Your task to perform on an android device: turn vacation reply on in the gmail app Image 0: 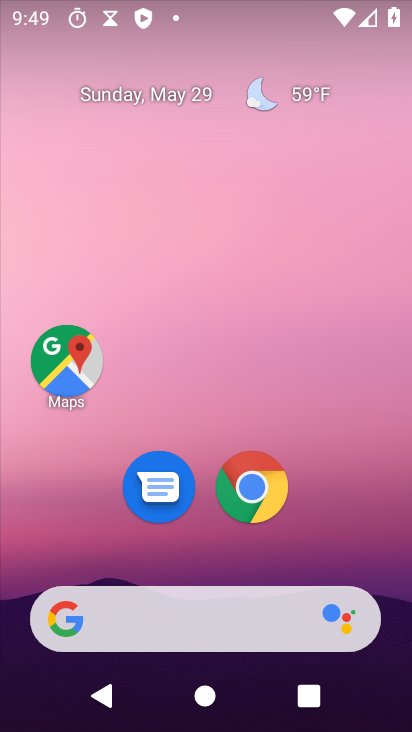
Step 0: drag from (331, 523) to (298, 77)
Your task to perform on an android device: turn vacation reply on in the gmail app Image 1: 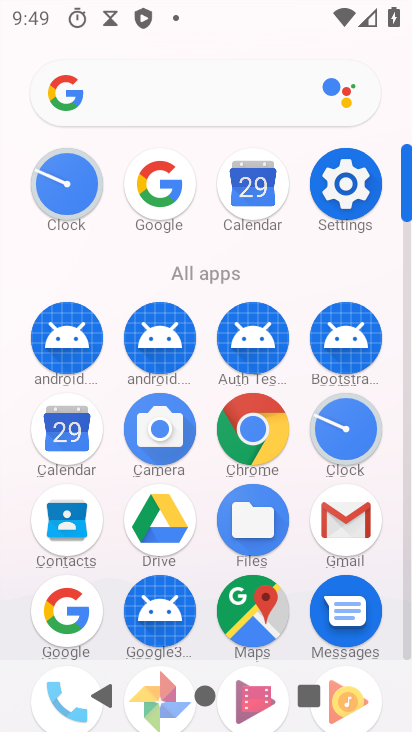
Step 1: click (344, 520)
Your task to perform on an android device: turn vacation reply on in the gmail app Image 2: 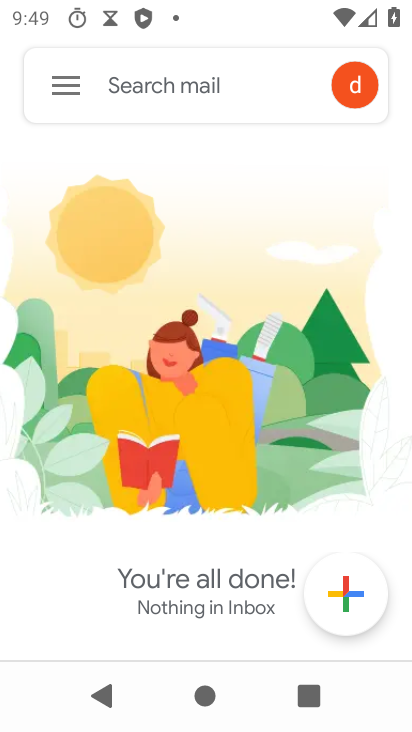
Step 2: click (60, 83)
Your task to perform on an android device: turn vacation reply on in the gmail app Image 3: 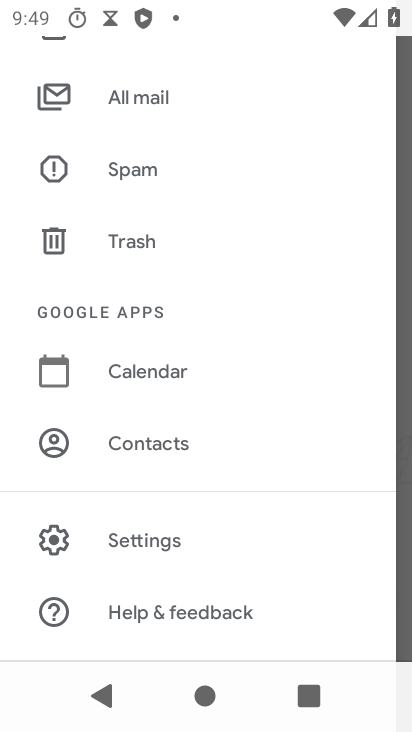
Step 3: click (172, 548)
Your task to perform on an android device: turn vacation reply on in the gmail app Image 4: 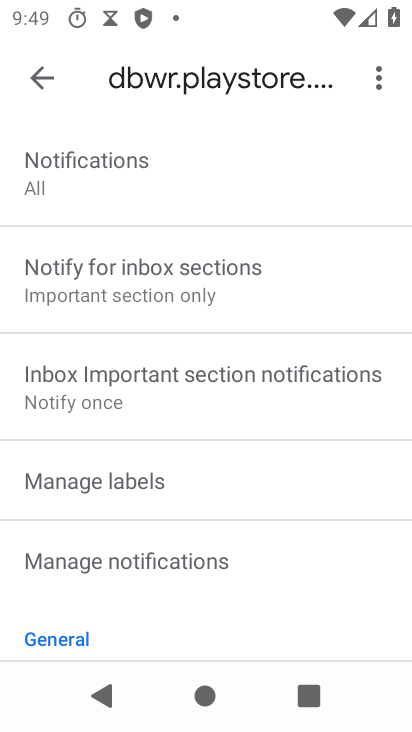
Step 4: drag from (143, 588) to (197, 471)
Your task to perform on an android device: turn vacation reply on in the gmail app Image 5: 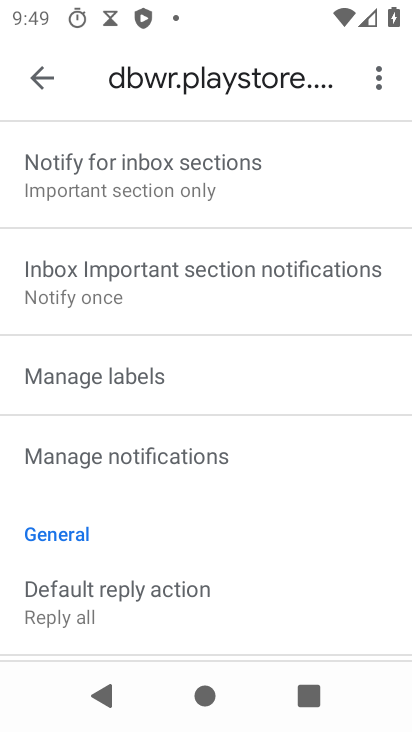
Step 5: drag from (155, 549) to (222, 440)
Your task to perform on an android device: turn vacation reply on in the gmail app Image 6: 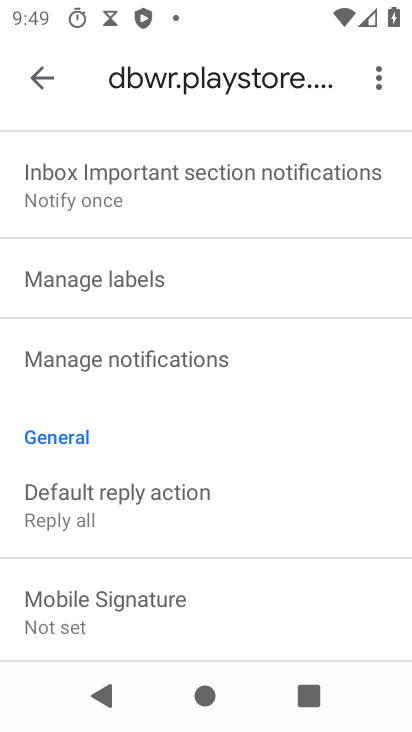
Step 6: drag from (157, 524) to (236, 416)
Your task to perform on an android device: turn vacation reply on in the gmail app Image 7: 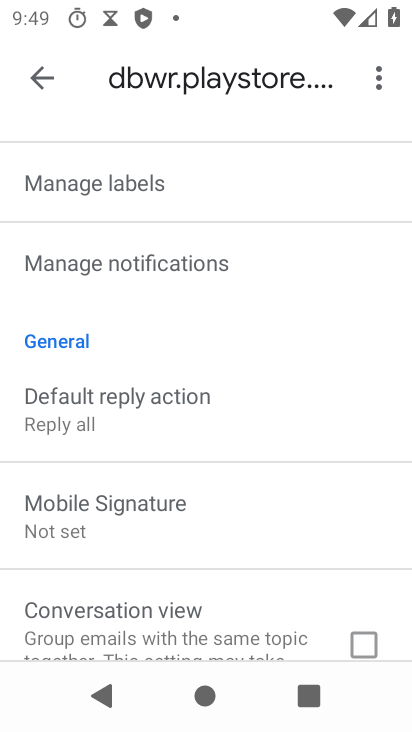
Step 7: drag from (119, 552) to (193, 442)
Your task to perform on an android device: turn vacation reply on in the gmail app Image 8: 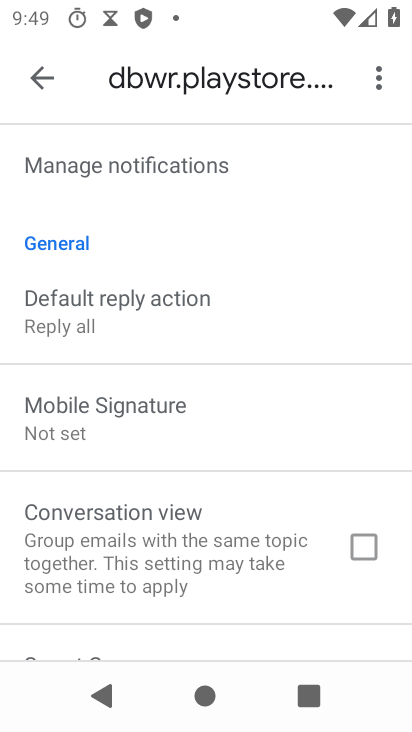
Step 8: drag from (130, 493) to (199, 390)
Your task to perform on an android device: turn vacation reply on in the gmail app Image 9: 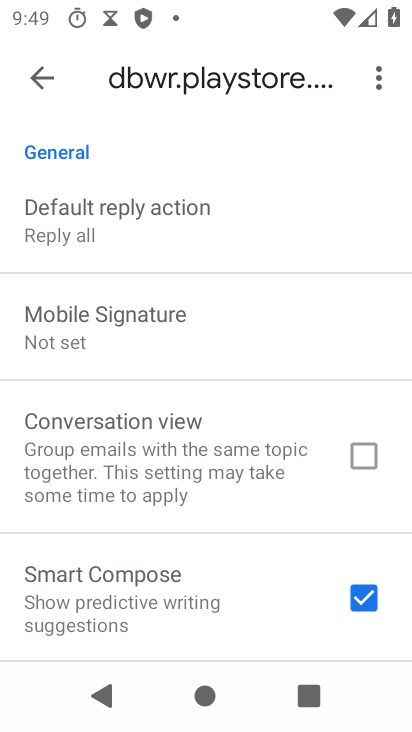
Step 9: drag from (95, 556) to (203, 436)
Your task to perform on an android device: turn vacation reply on in the gmail app Image 10: 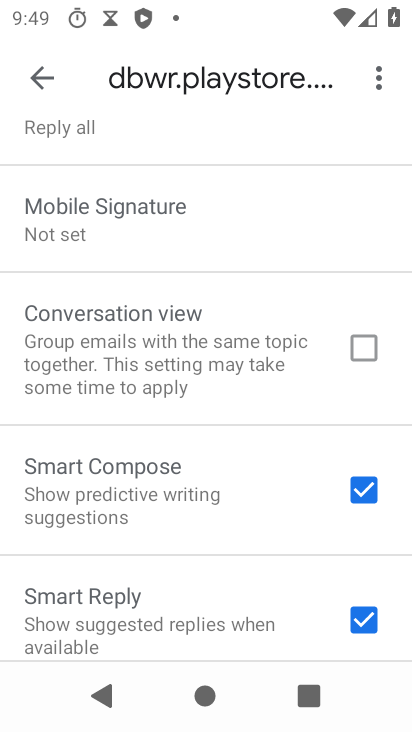
Step 10: drag from (163, 570) to (259, 447)
Your task to perform on an android device: turn vacation reply on in the gmail app Image 11: 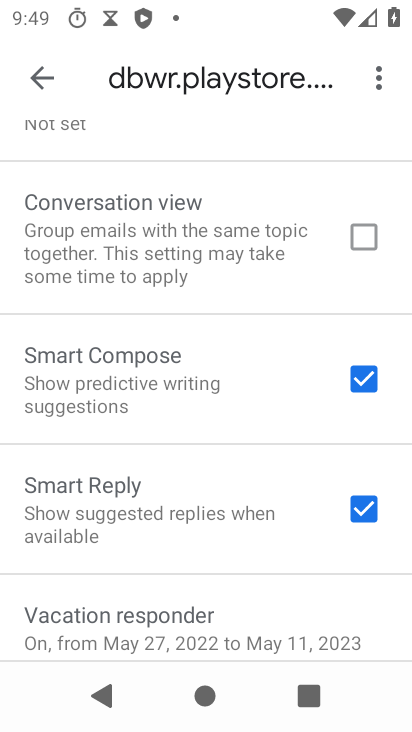
Step 11: drag from (161, 525) to (259, 410)
Your task to perform on an android device: turn vacation reply on in the gmail app Image 12: 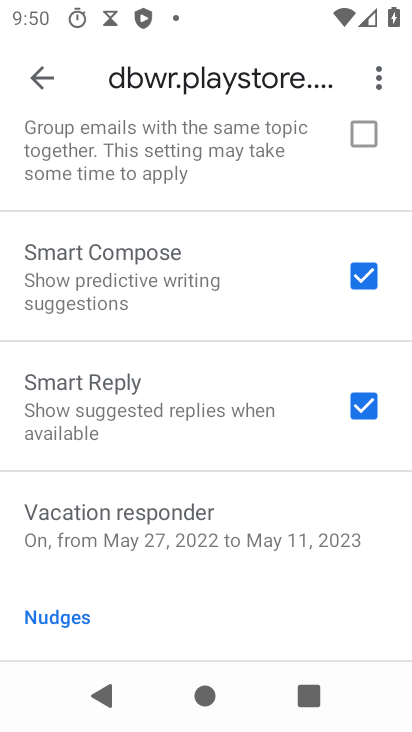
Step 12: click (143, 520)
Your task to perform on an android device: turn vacation reply on in the gmail app Image 13: 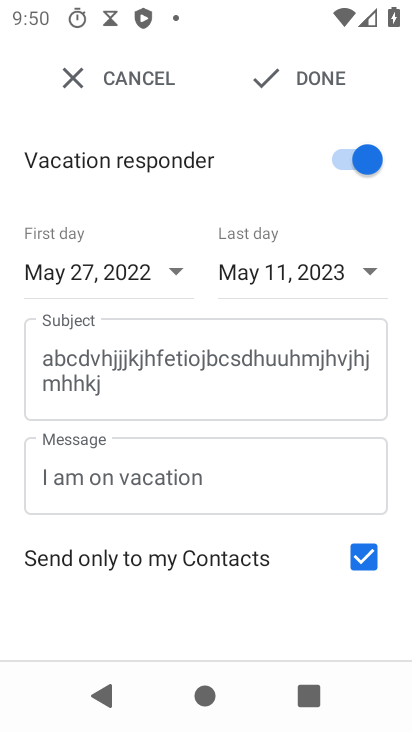
Step 13: task complete